Your task to perform on an android device: What is the recent news? Image 0: 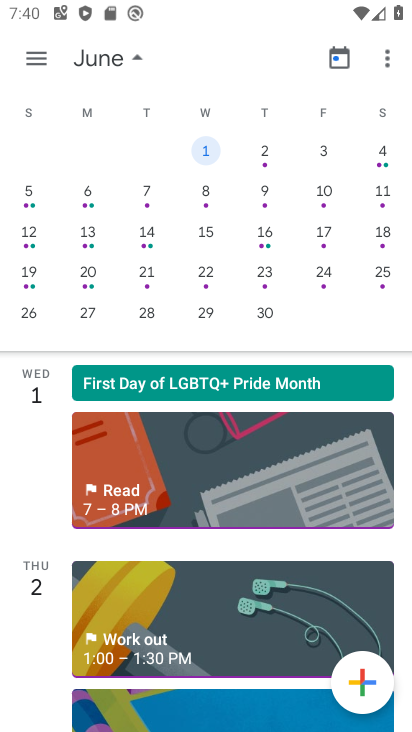
Step 0: press home button
Your task to perform on an android device: What is the recent news? Image 1: 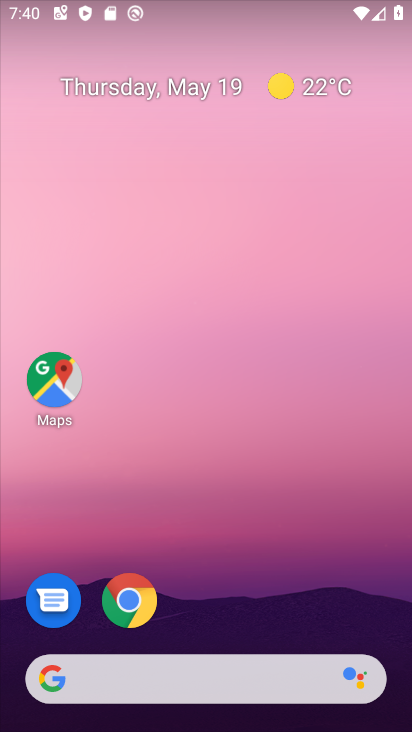
Step 1: drag from (350, 593) to (312, 188)
Your task to perform on an android device: What is the recent news? Image 2: 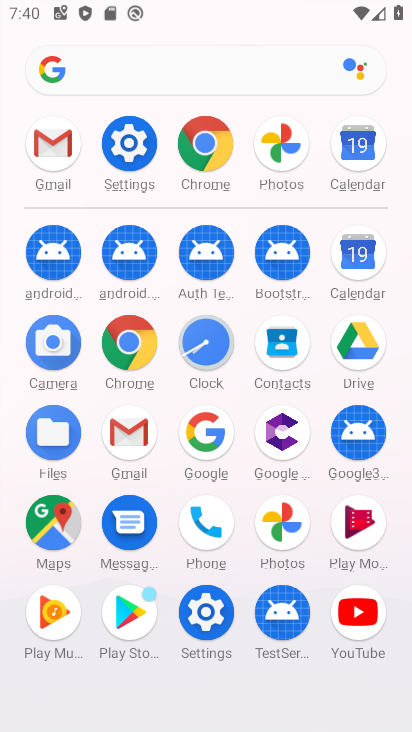
Step 2: click (136, 351)
Your task to perform on an android device: What is the recent news? Image 3: 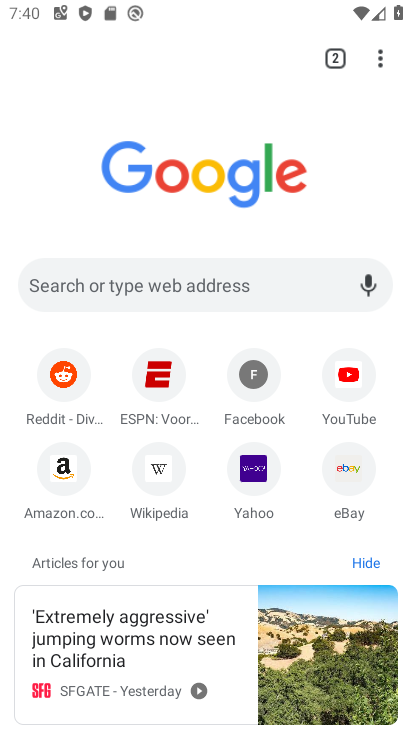
Step 3: click (177, 280)
Your task to perform on an android device: What is the recent news? Image 4: 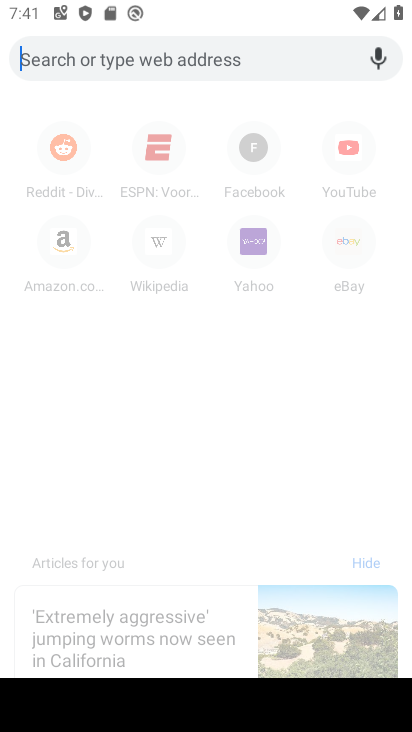
Step 4: type "what is the recent news"
Your task to perform on an android device: What is the recent news? Image 5: 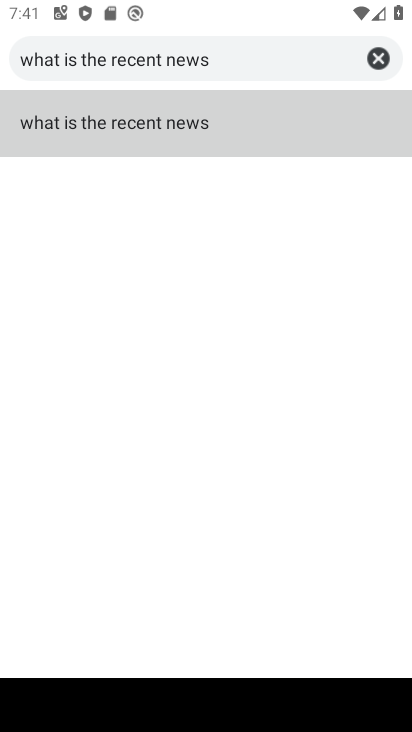
Step 5: click (155, 131)
Your task to perform on an android device: What is the recent news? Image 6: 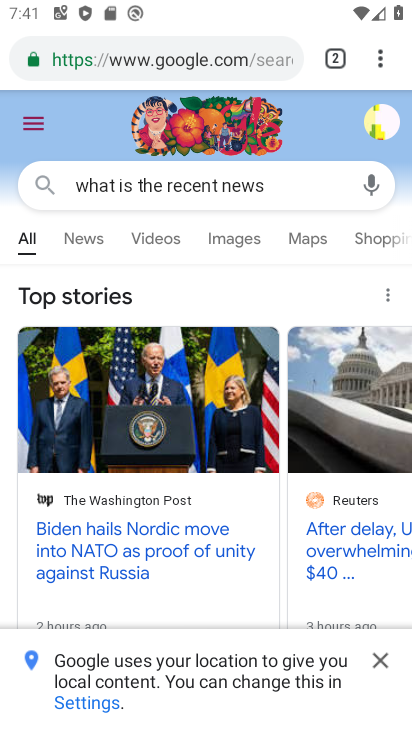
Step 6: click (383, 660)
Your task to perform on an android device: What is the recent news? Image 7: 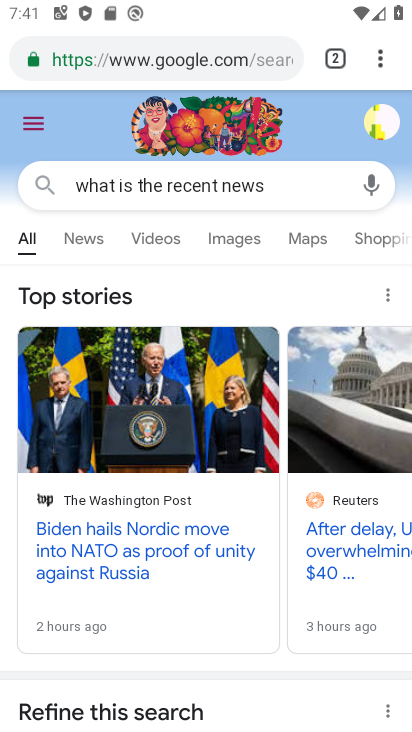
Step 7: task complete